Your task to perform on an android device: What's the weather going to be tomorrow? Image 0: 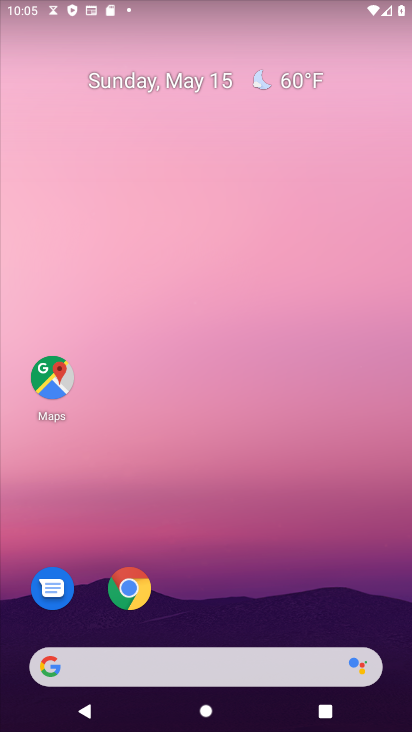
Step 0: drag from (239, 628) to (234, 72)
Your task to perform on an android device: What's the weather going to be tomorrow? Image 1: 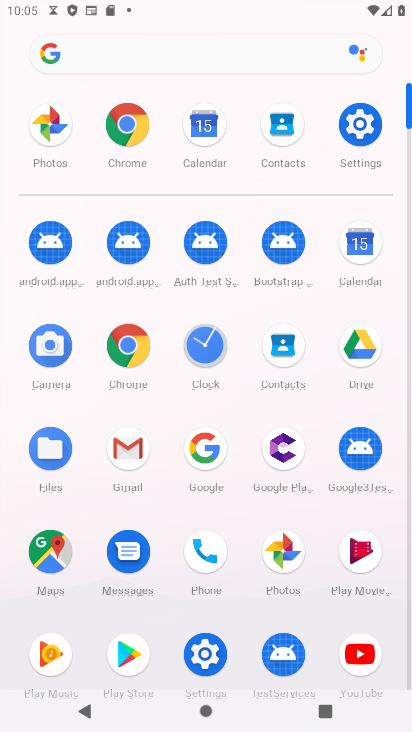
Step 1: click (126, 130)
Your task to perform on an android device: What's the weather going to be tomorrow? Image 2: 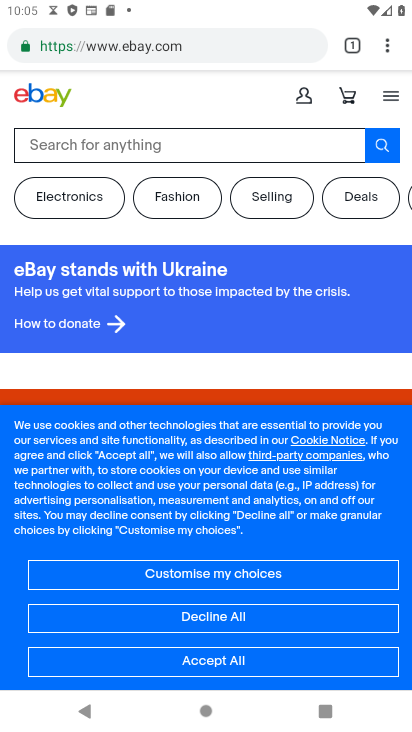
Step 2: click (288, 49)
Your task to perform on an android device: What's the weather going to be tomorrow? Image 3: 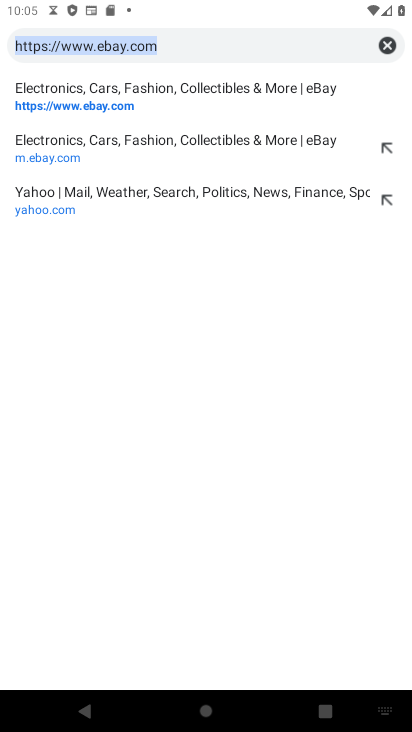
Step 3: type "What's the weather going to be tomorrow?"
Your task to perform on an android device: What's the weather going to be tomorrow? Image 4: 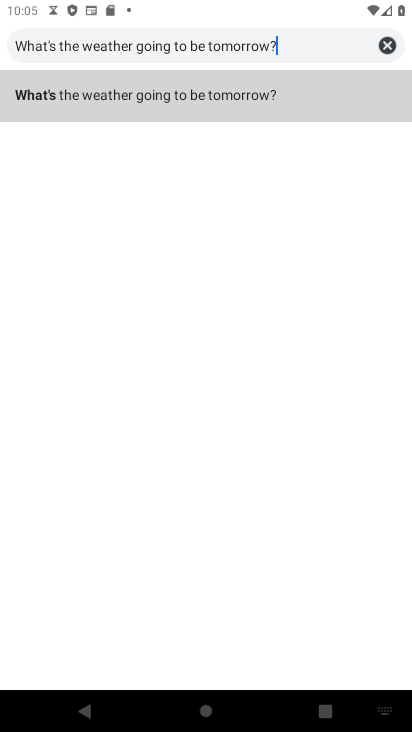
Step 4: click (122, 90)
Your task to perform on an android device: What's the weather going to be tomorrow? Image 5: 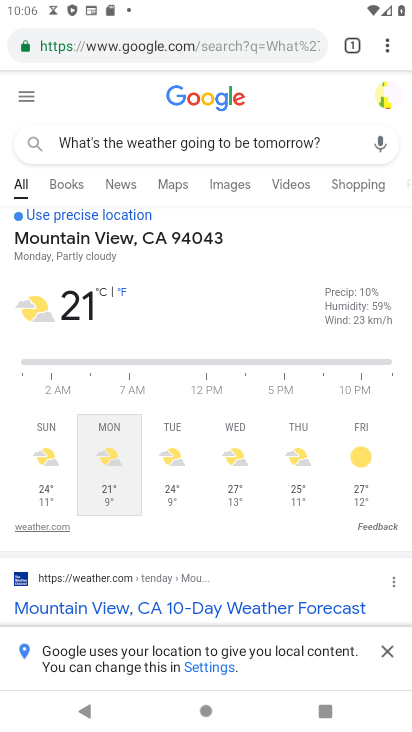
Step 5: click (179, 453)
Your task to perform on an android device: What's the weather going to be tomorrow? Image 6: 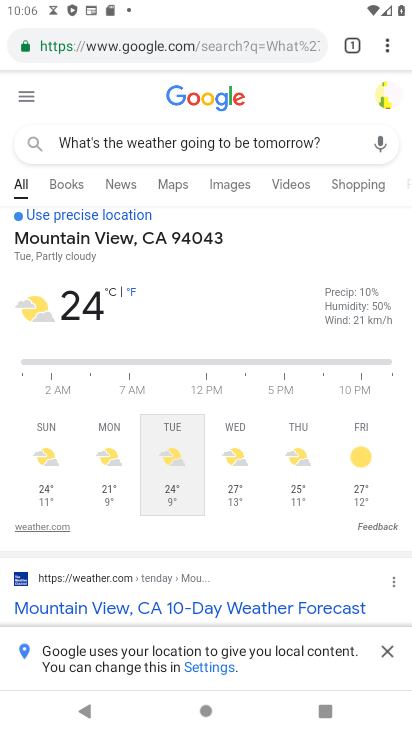
Step 6: task complete